Your task to perform on an android device: What is the recent news? Image 0: 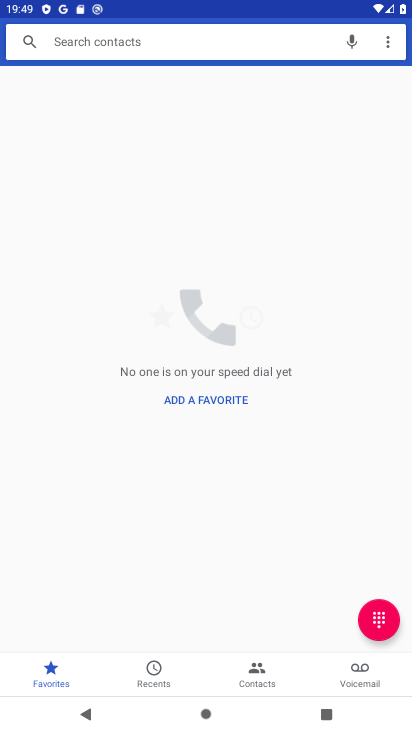
Step 0: press home button
Your task to perform on an android device: What is the recent news? Image 1: 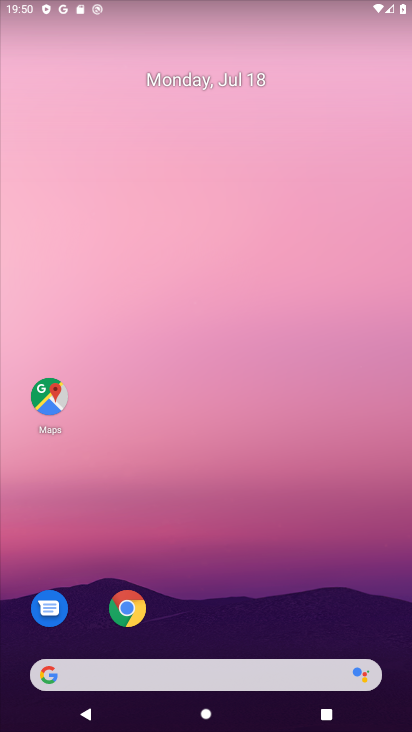
Step 1: drag from (154, 636) to (160, 124)
Your task to perform on an android device: What is the recent news? Image 2: 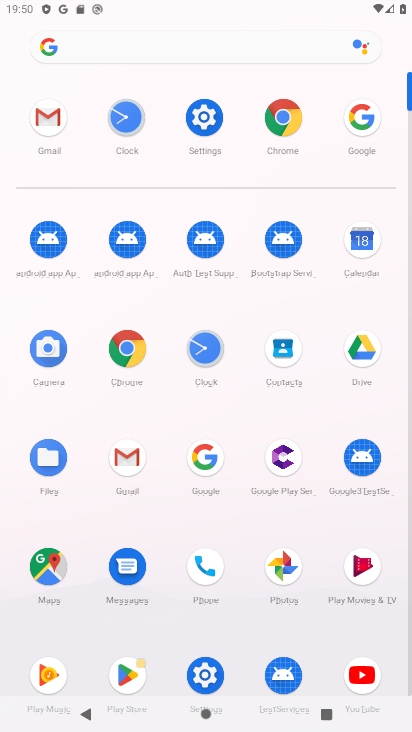
Step 2: click (212, 458)
Your task to perform on an android device: What is the recent news? Image 3: 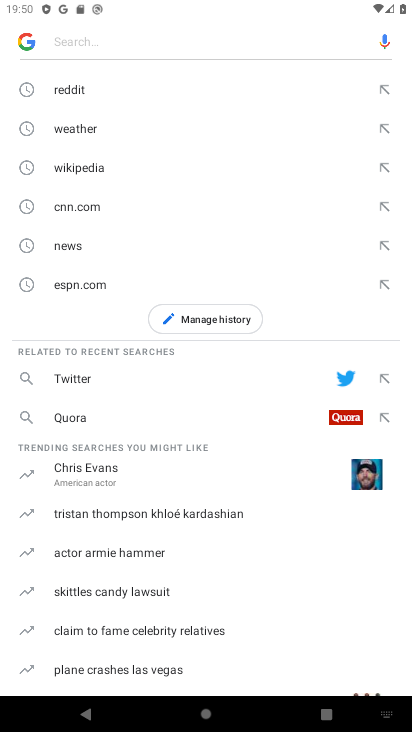
Step 3: type "recent news"
Your task to perform on an android device: What is the recent news? Image 4: 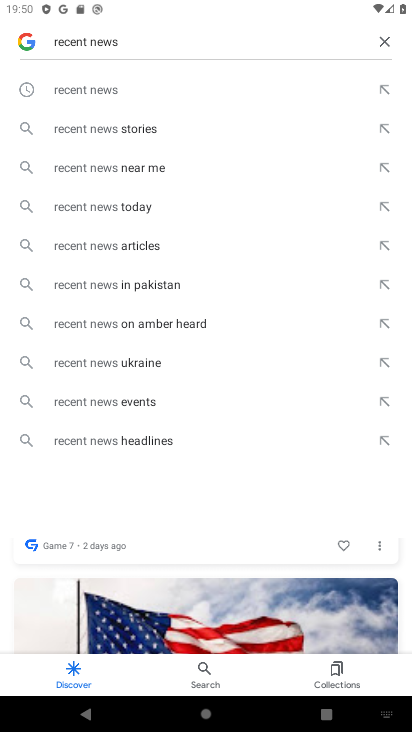
Step 4: click (120, 82)
Your task to perform on an android device: What is the recent news? Image 5: 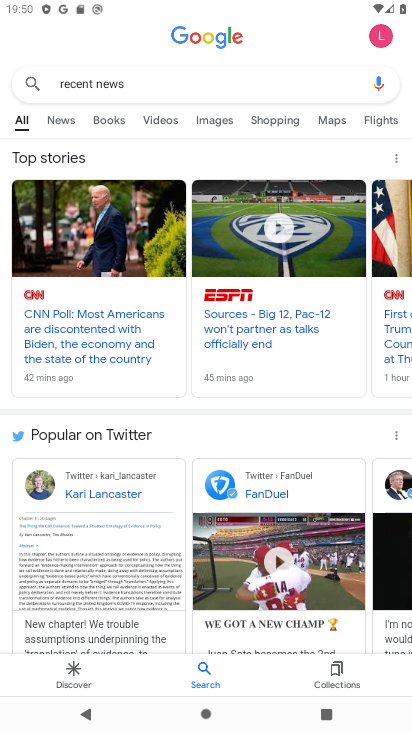
Step 5: task complete